Your task to perform on an android device: Open the web browser Image 0: 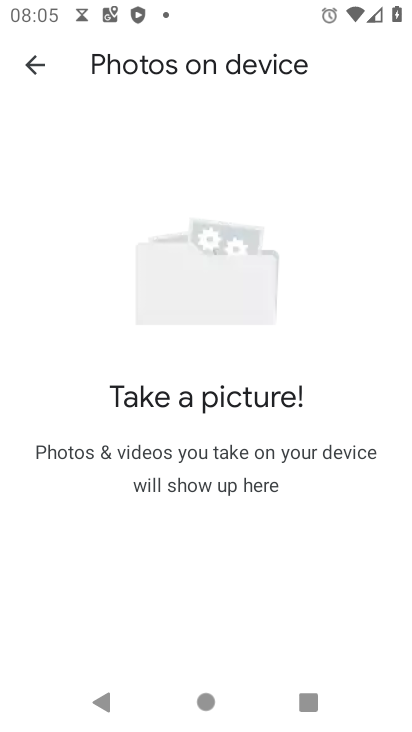
Step 0: press home button
Your task to perform on an android device: Open the web browser Image 1: 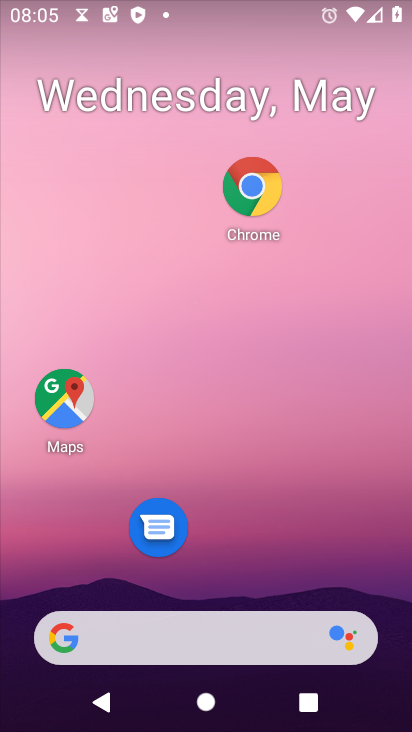
Step 1: click (258, 193)
Your task to perform on an android device: Open the web browser Image 2: 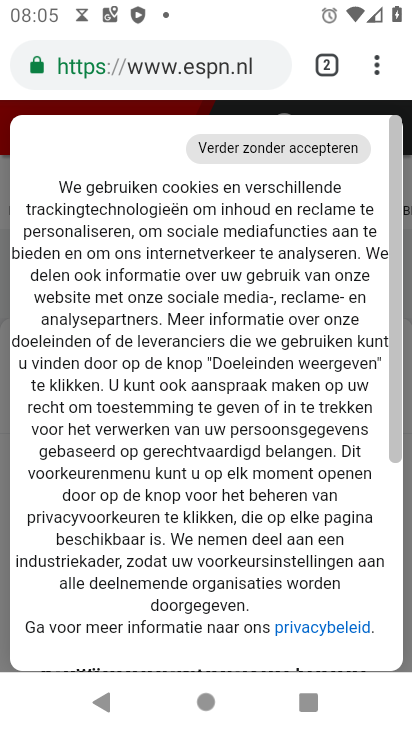
Step 2: click (222, 61)
Your task to perform on an android device: Open the web browser Image 3: 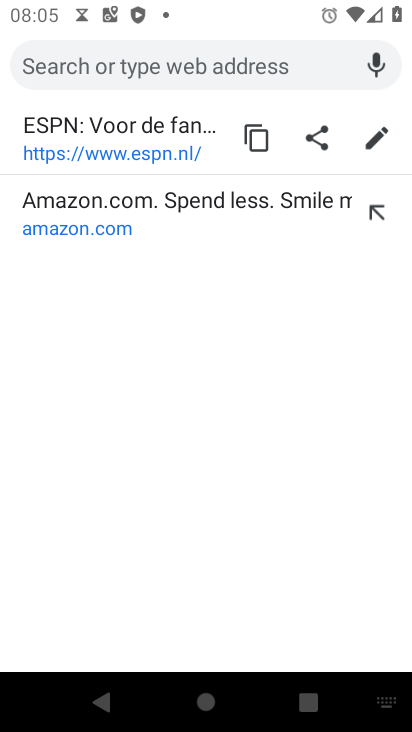
Step 3: type "web browser"
Your task to perform on an android device: Open the web browser Image 4: 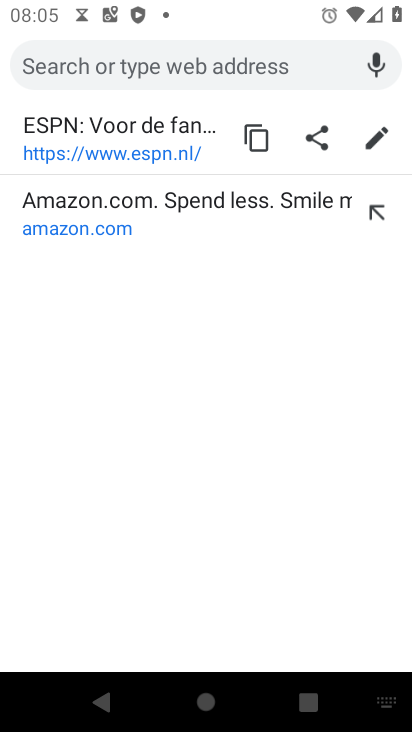
Step 4: click (110, 62)
Your task to perform on an android device: Open the web browser Image 5: 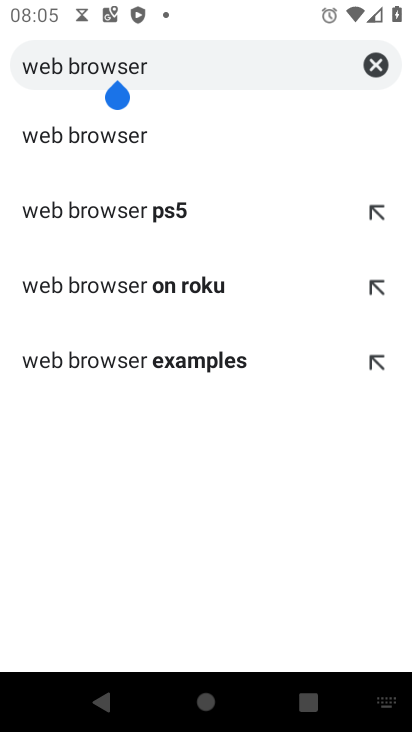
Step 5: click (92, 137)
Your task to perform on an android device: Open the web browser Image 6: 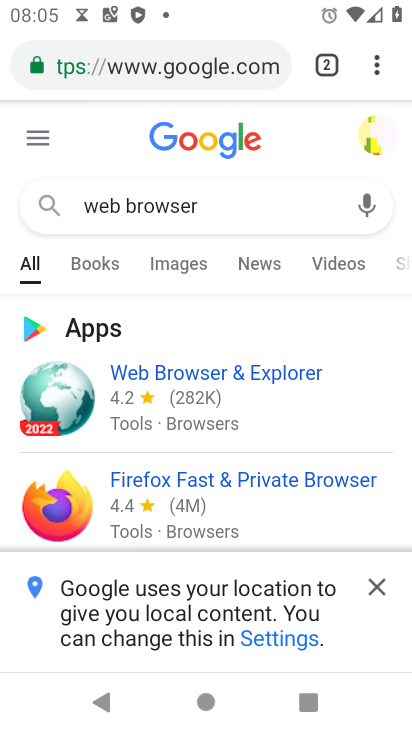
Step 6: drag from (237, 388) to (303, 183)
Your task to perform on an android device: Open the web browser Image 7: 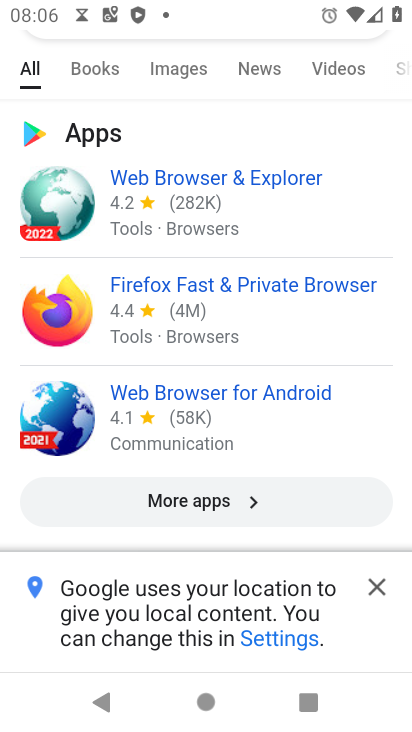
Step 7: click (139, 173)
Your task to perform on an android device: Open the web browser Image 8: 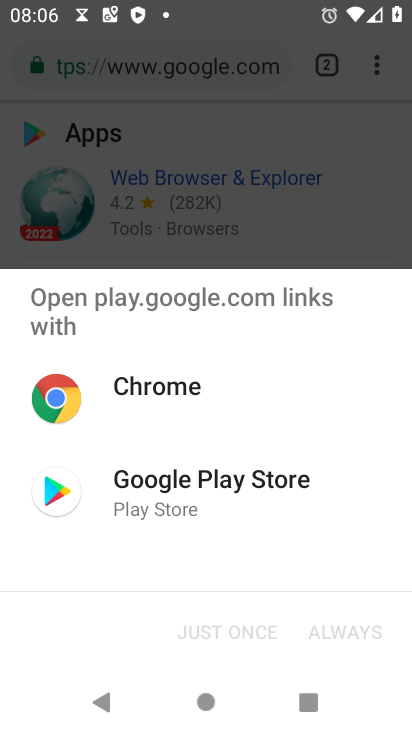
Step 8: click (382, 174)
Your task to perform on an android device: Open the web browser Image 9: 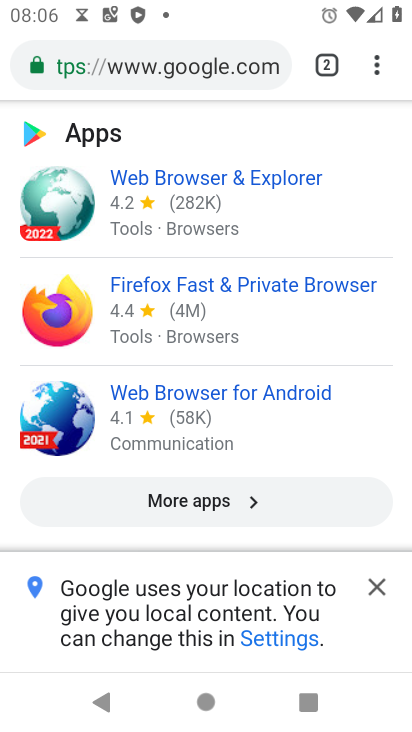
Step 9: task complete